Your task to perform on an android device: turn off notifications in google photos Image 0: 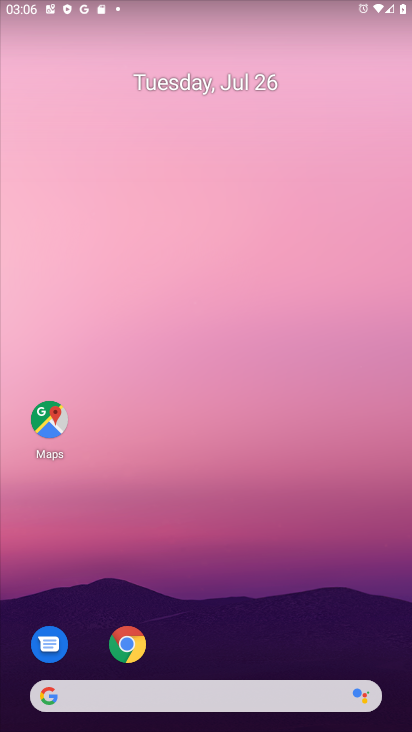
Step 0: press home button
Your task to perform on an android device: turn off notifications in google photos Image 1: 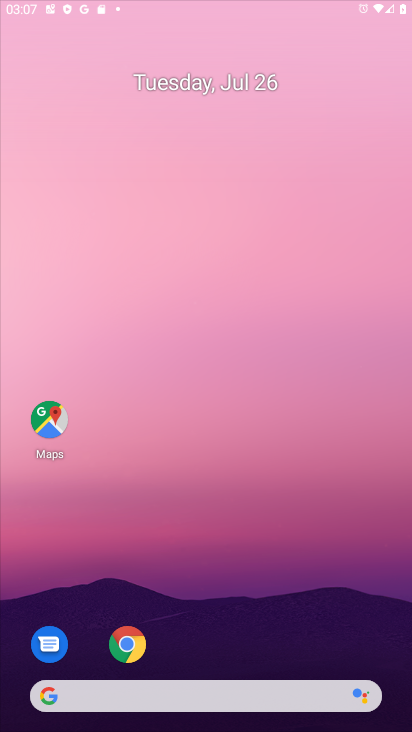
Step 1: drag from (196, 693) to (150, 185)
Your task to perform on an android device: turn off notifications in google photos Image 2: 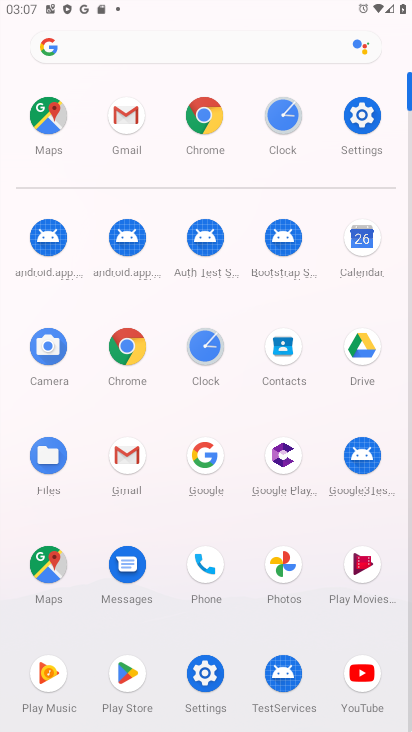
Step 2: click (278, 575)
Your task to perform on an android device: turn off notifications in google photos Image 3: 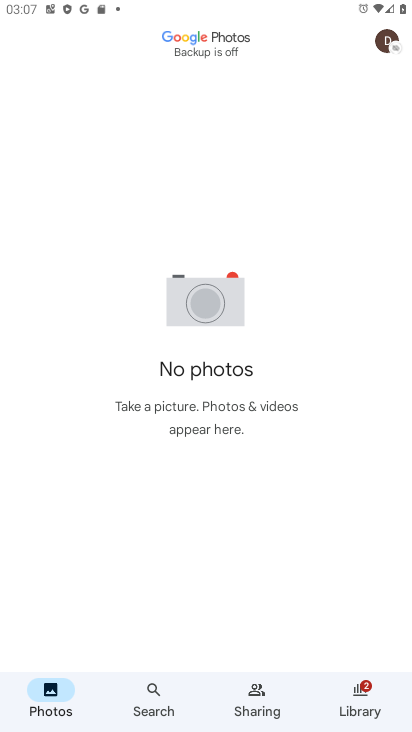
Step 3: drag from (383, 53) to (255, 542)
Your task to perform on an android device: turn off notifications in google photos Image 4: 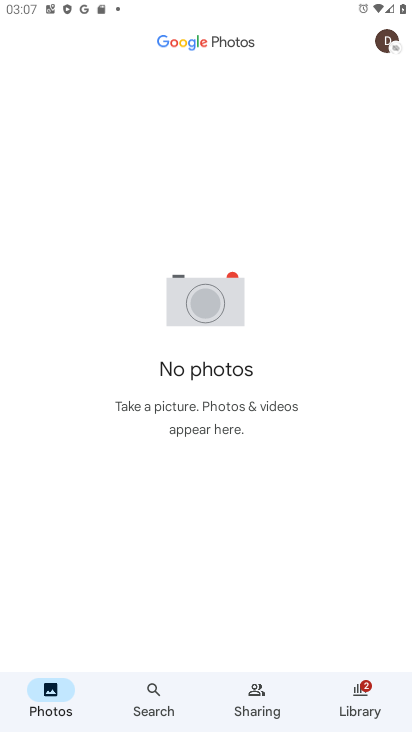
Step 4: drag from (390, 49) to (280, 459)
Your task to perform on an android device: turn off notifications in google photos Image 5: 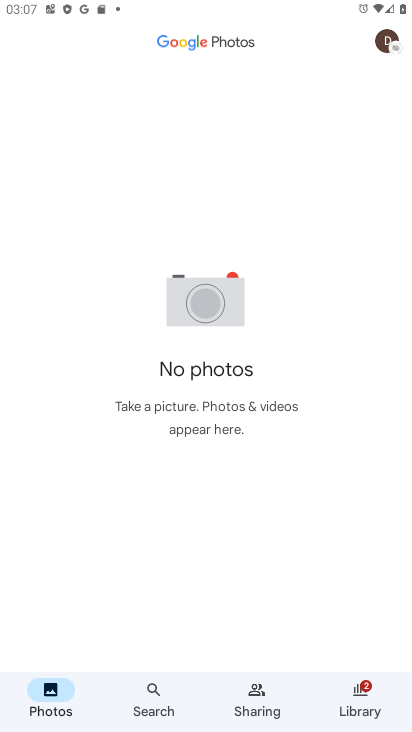
Step 5: click (388, 39)
Your task to perform on an android device: turn off notifications in google photos Image 6: 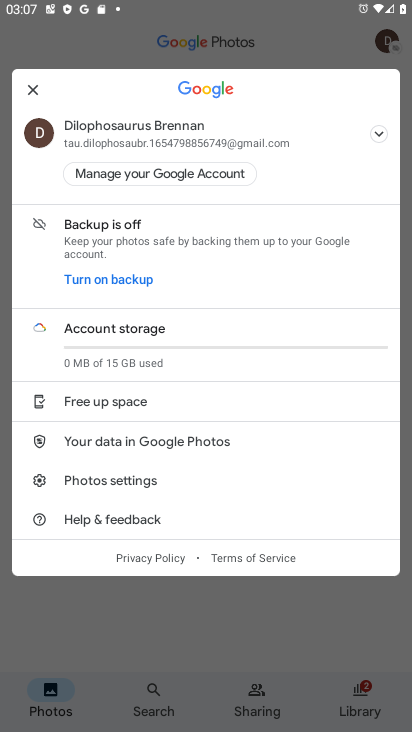
Step 6: click (105, 489)
Your task to perform on an android device: turn off notifications in google photos Image 7: 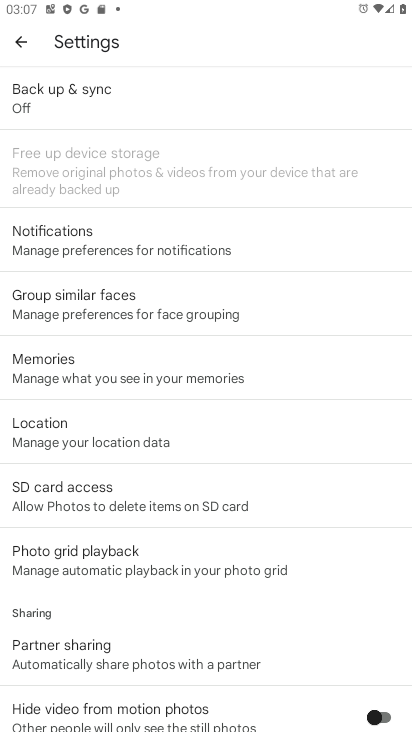
Step 7: click (66, 256)
Your task to perform on an android device: turn off notifications in google photos Image 8: 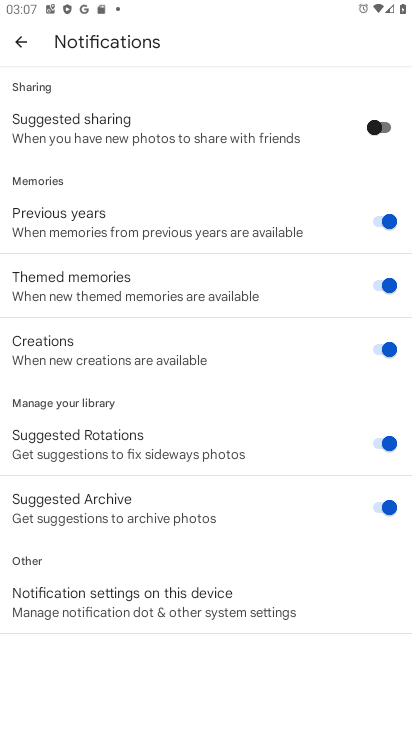
Step 8: click (134, 592)
Your task to perform on an android device: turn off notifications in google photos Image 9: 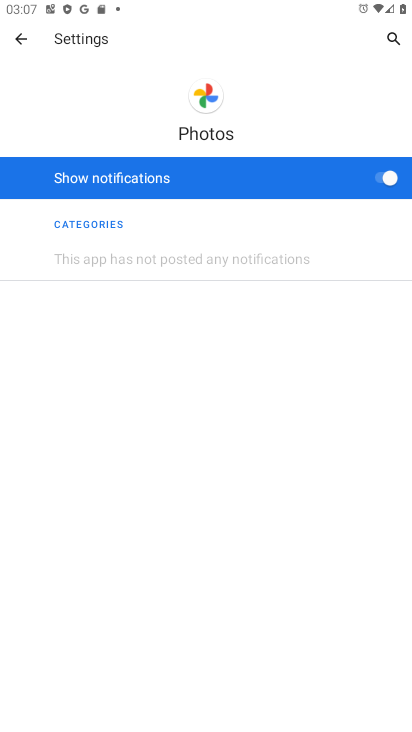
Step 9: click (378, 177)
Your task to perform on an android device: turn off notifications in google photos Image 10: 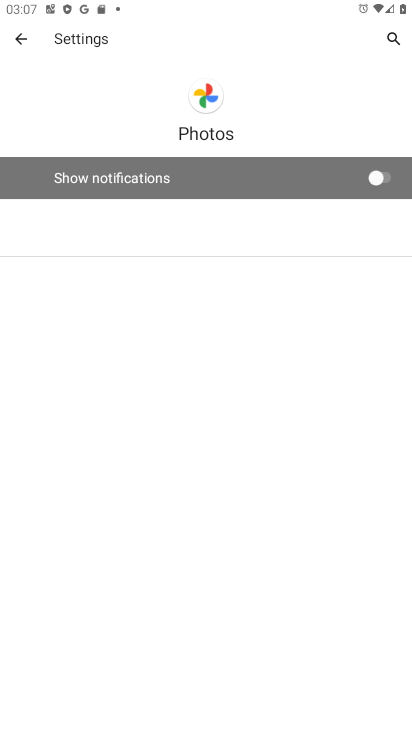
Step 10: task complete